Your task to perform on an android device: open app "The Home Depot" Image 0: 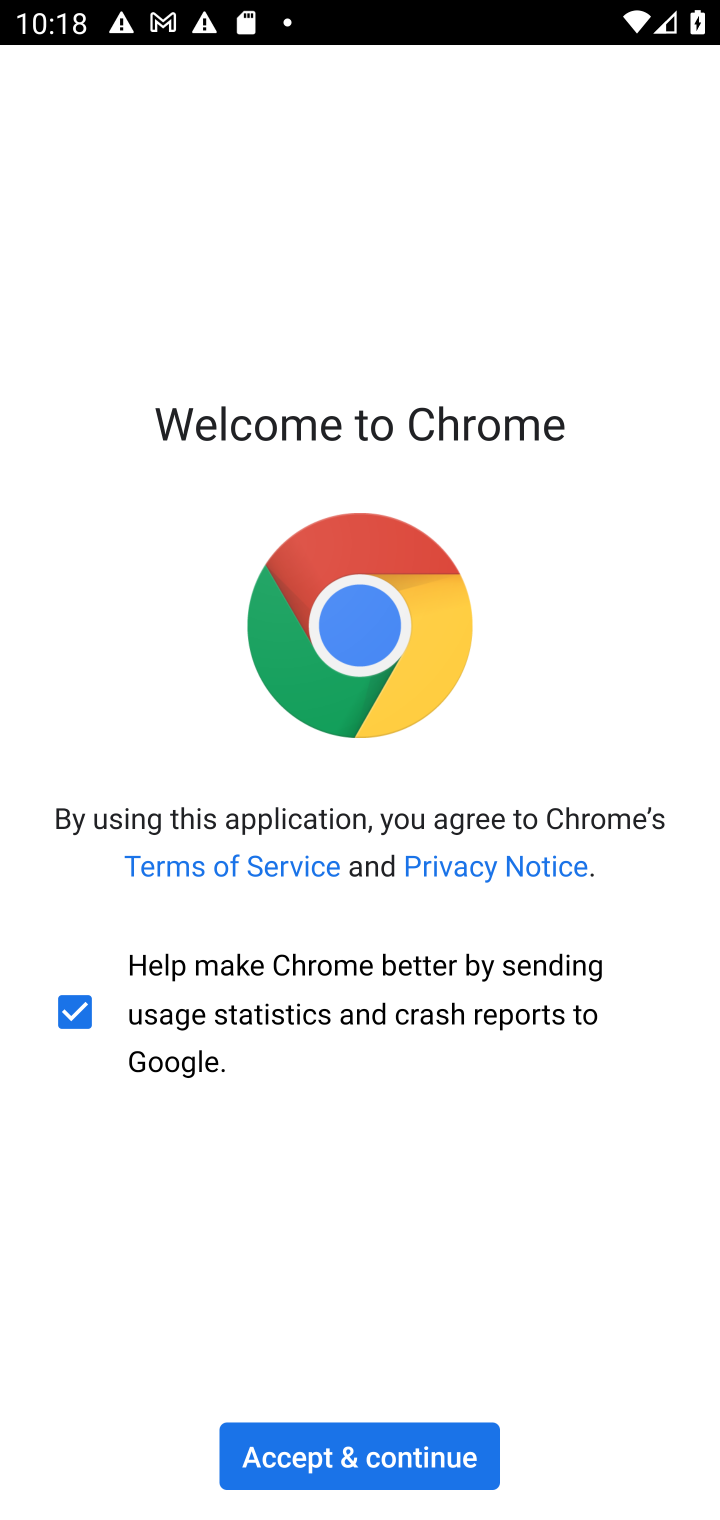
Step 0: press home button
Your task to perform on an android device: open app "The Home Depot" Image 1: 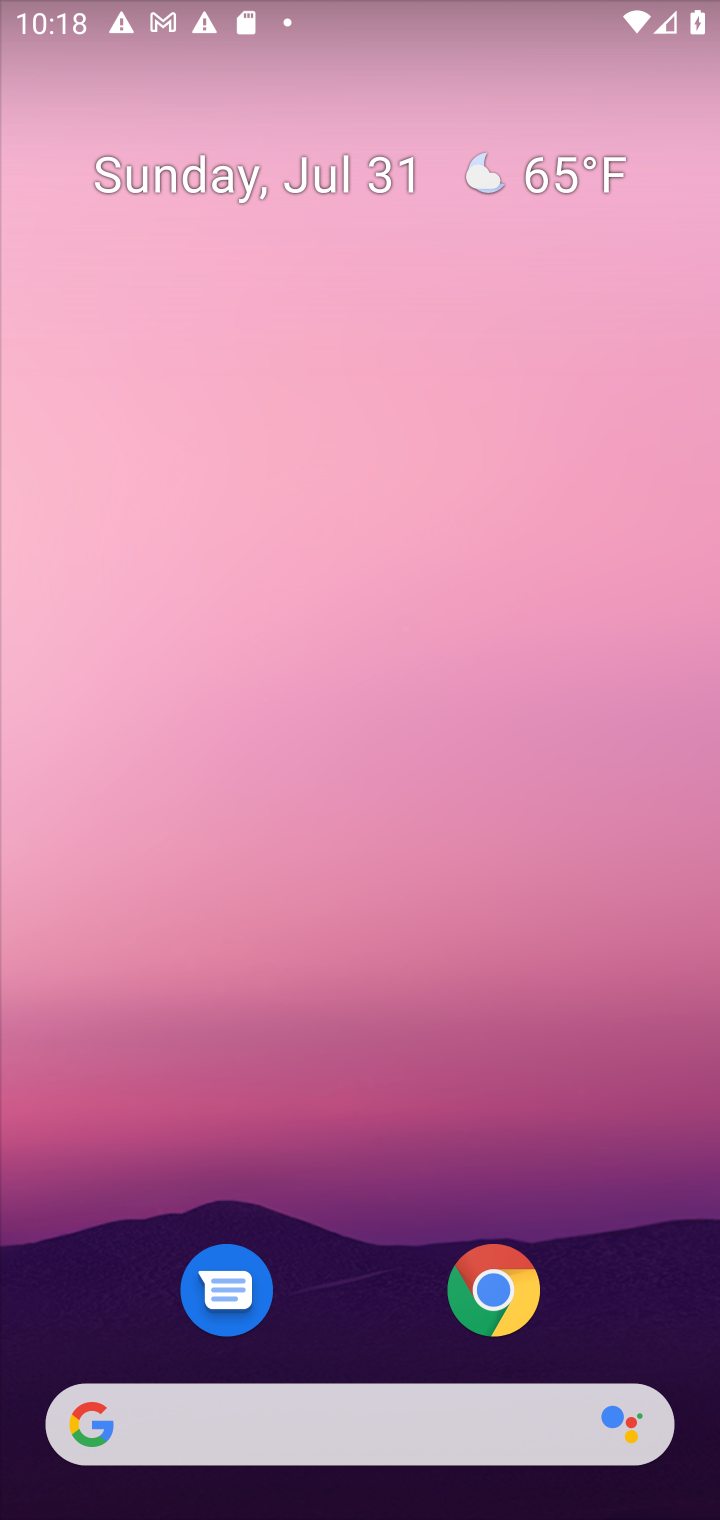
Step 1: drag from (580, 1069) to (579, 232)
Your task to perform on an android device: open app "The Home Depot" Image 2: 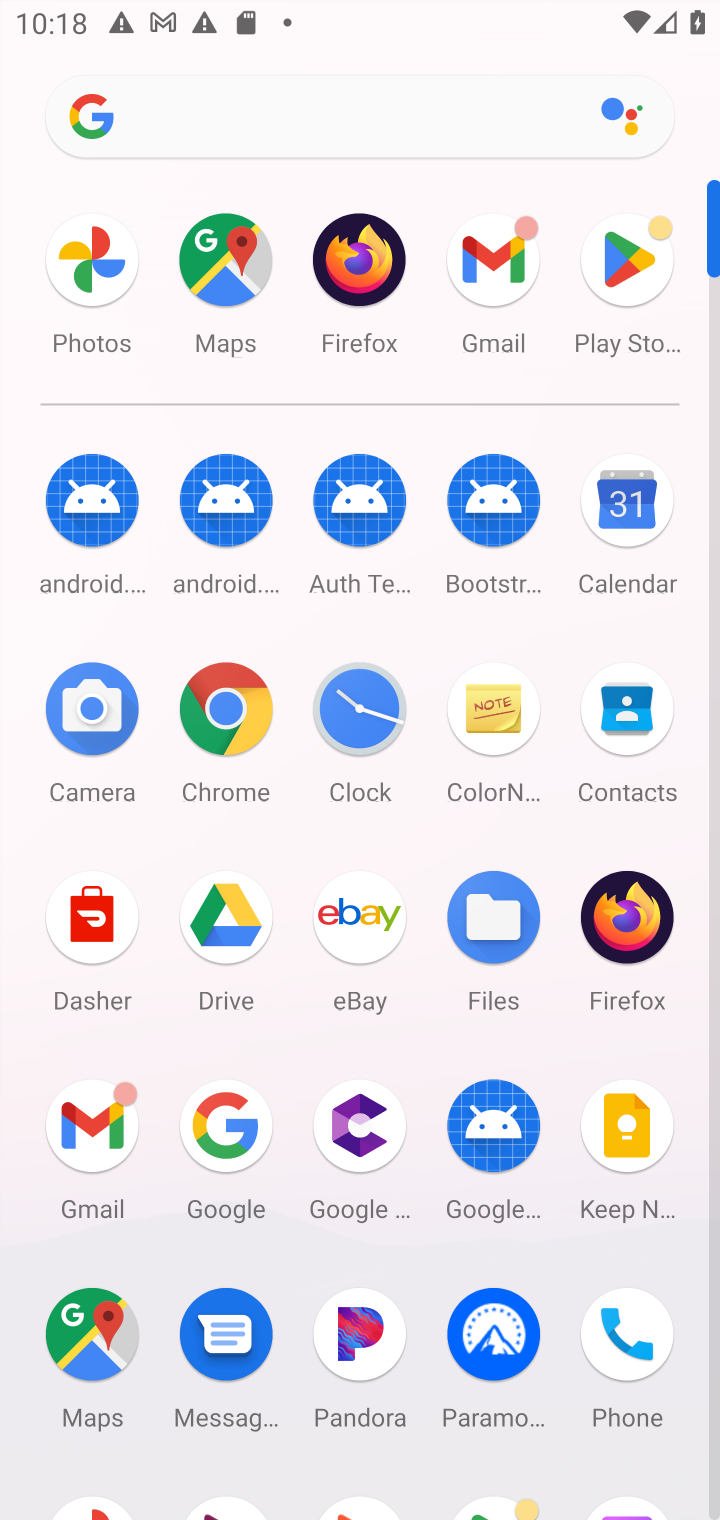
Step 2: click (622, 251)
Your task to perform on an android device: open app "The Home Depot" Image 3: 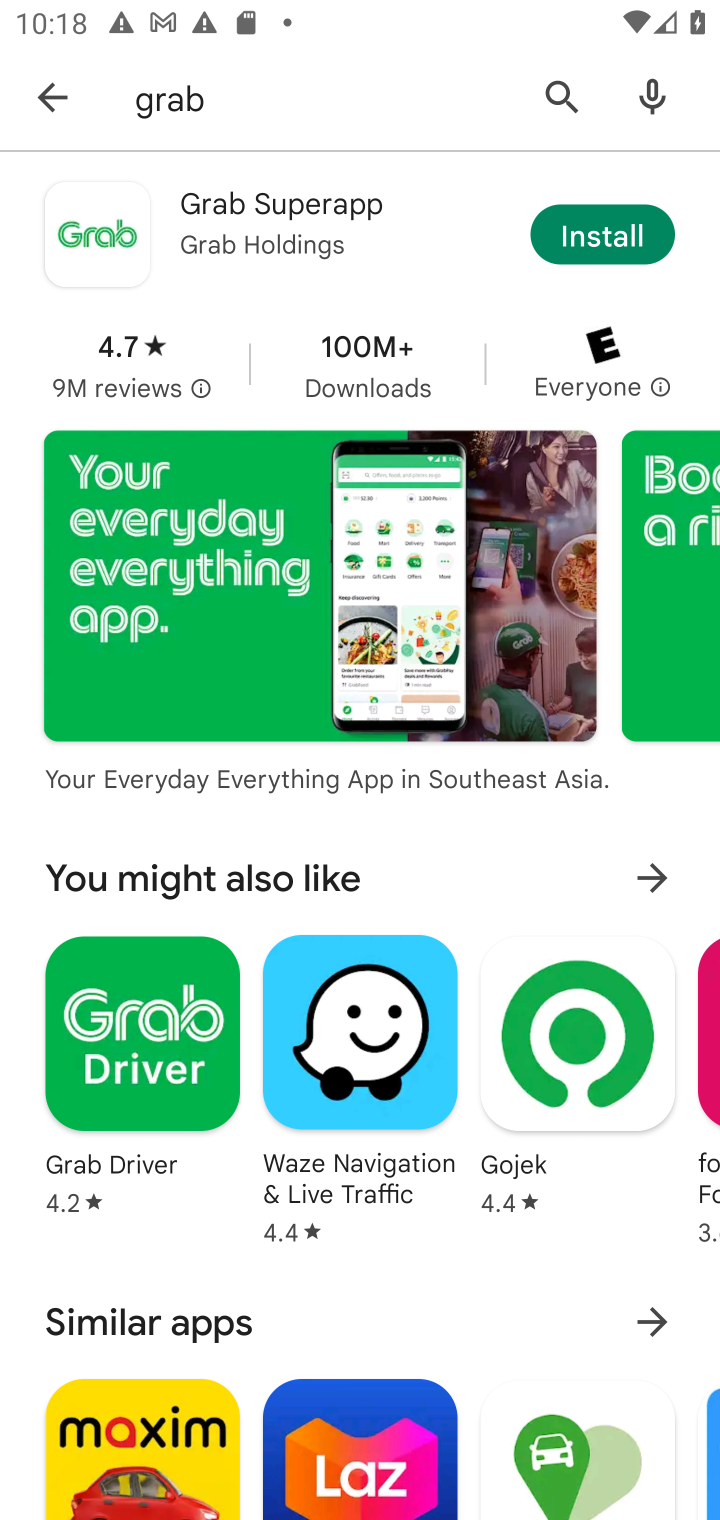
Step 3: click (557, 96)
Your task to perform on an android device: open app "The Home Depot" Image 4: 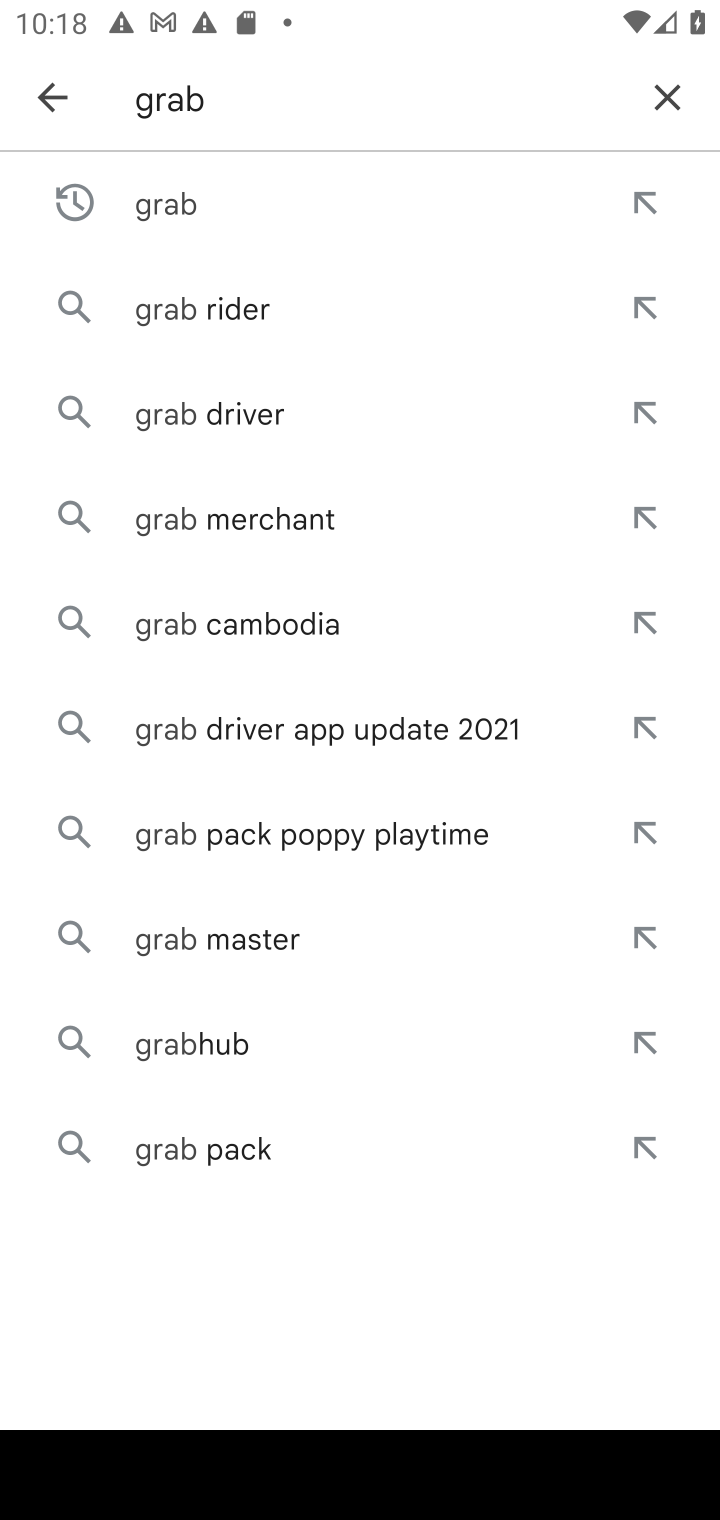
Step 4: click (668, 89)
Your task to perform on an android device: open app "The Home Depot" Image 5: 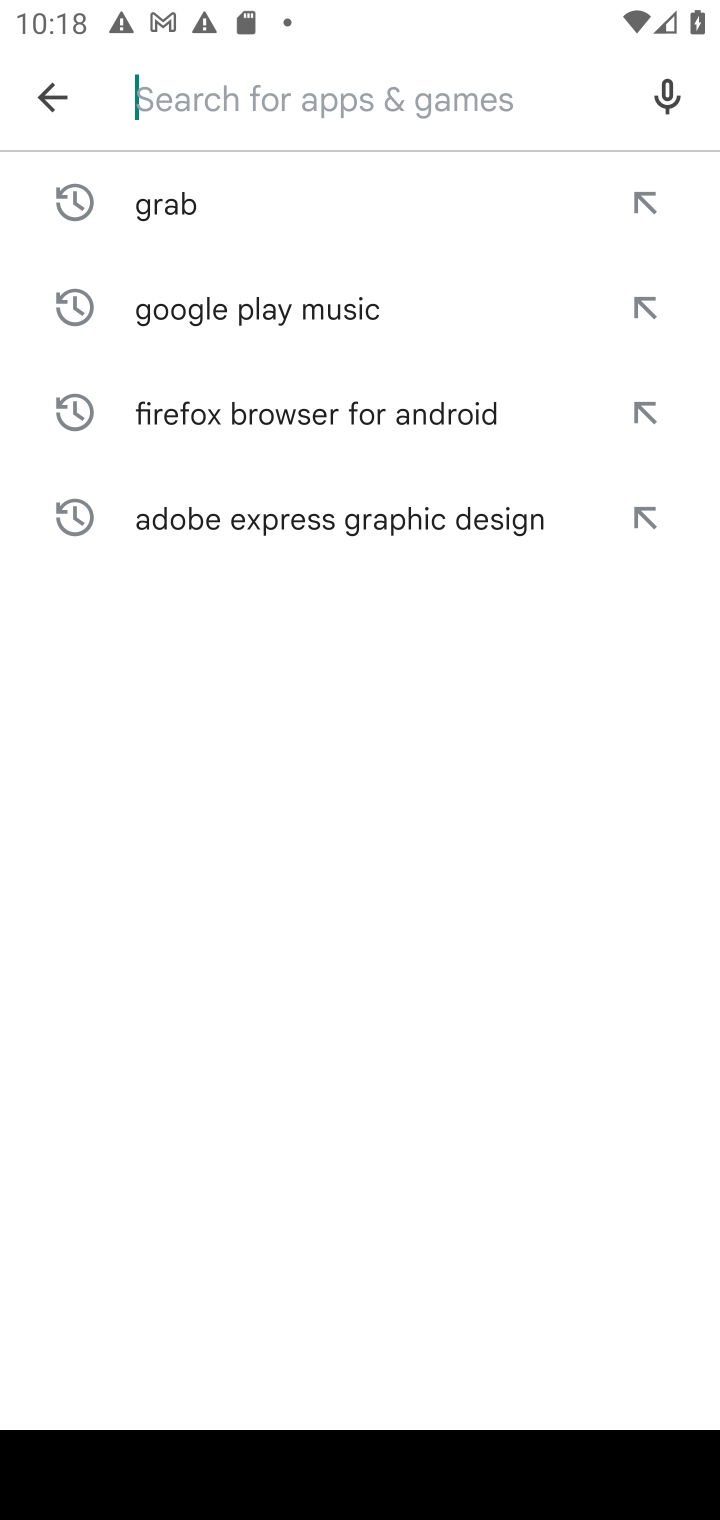
Step 5: type "the home depot"
Your task to perform on an android device: open app "The Home Depot" Image 6: 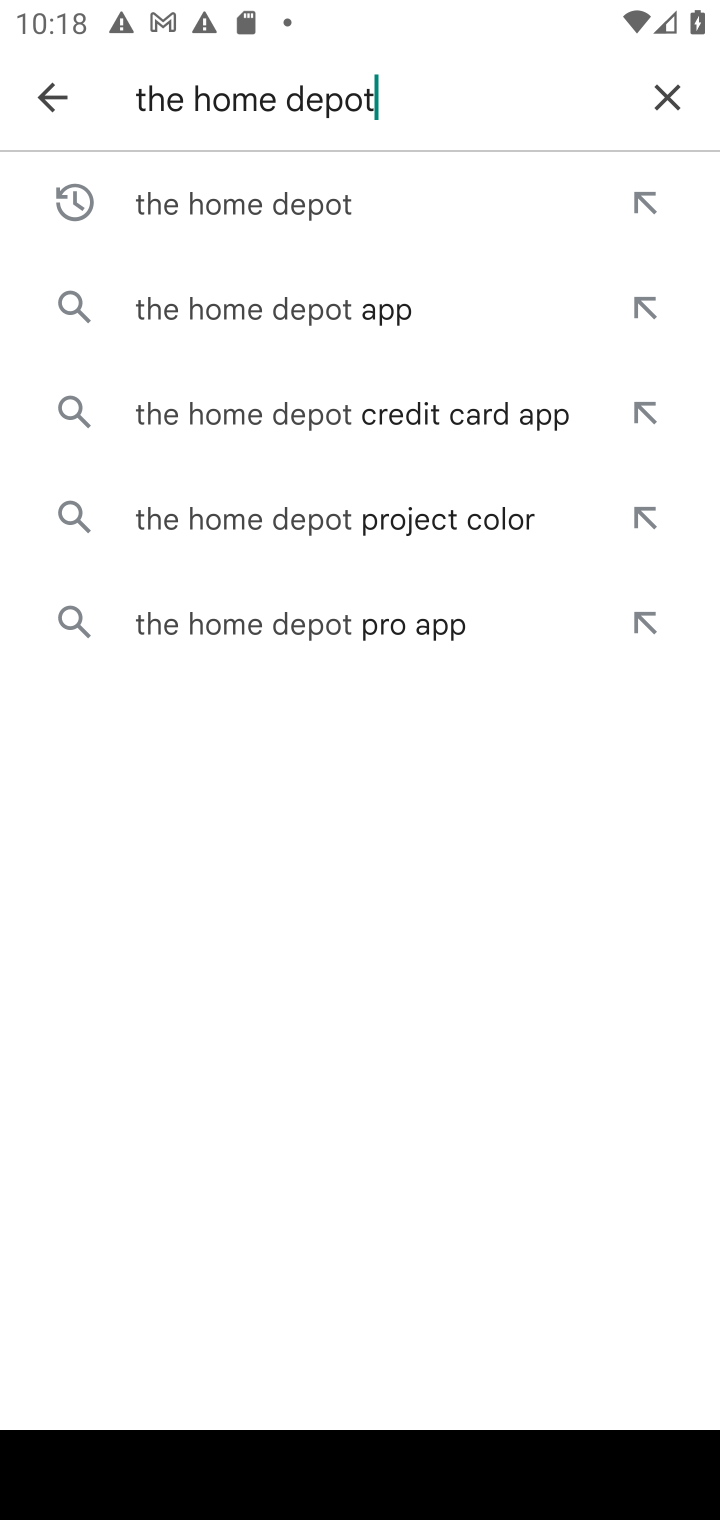
Step 6: click (376, 205)
Your task to perform on an android device: open app "The Home Depot" Image 7: 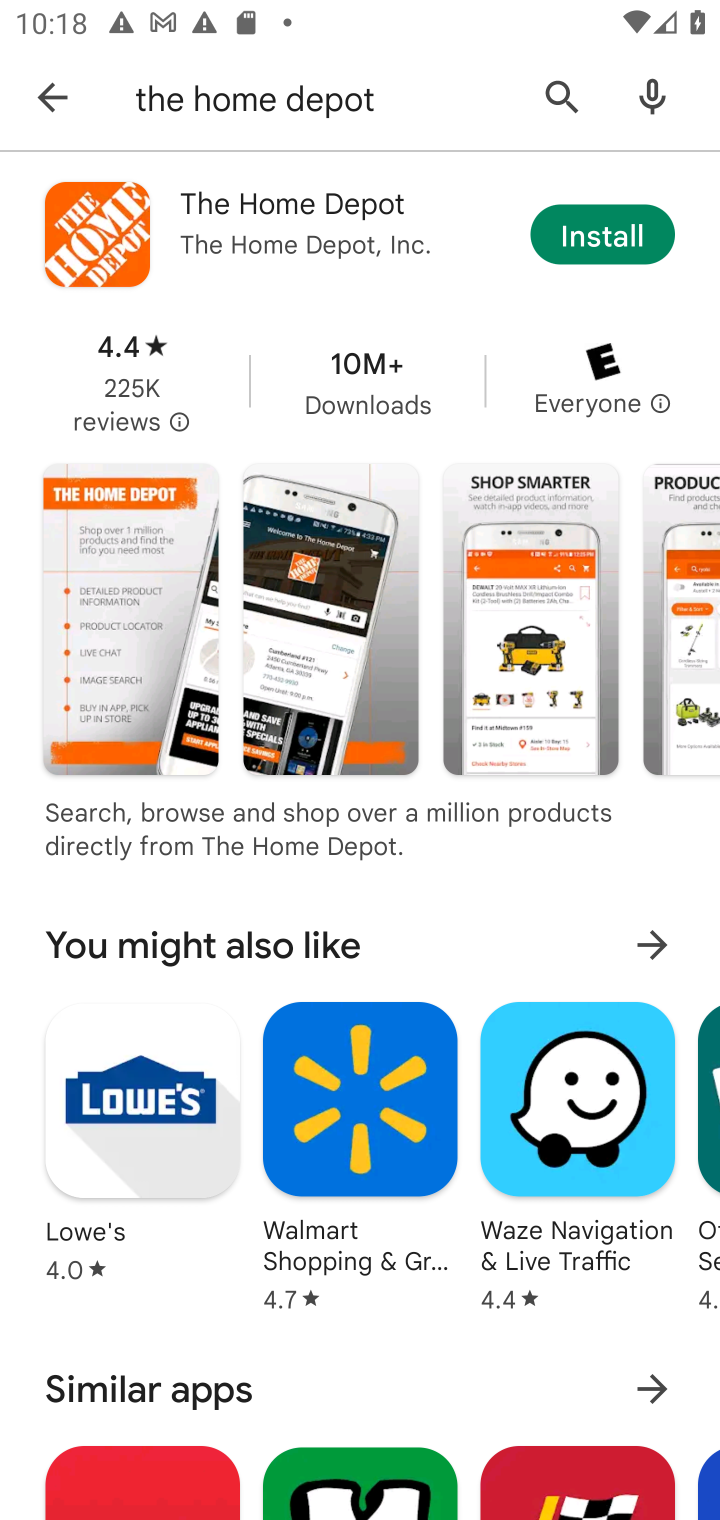
Step 7: task complete